Your task to perform on an android device: toggle pop-ups in chrome Image 0: 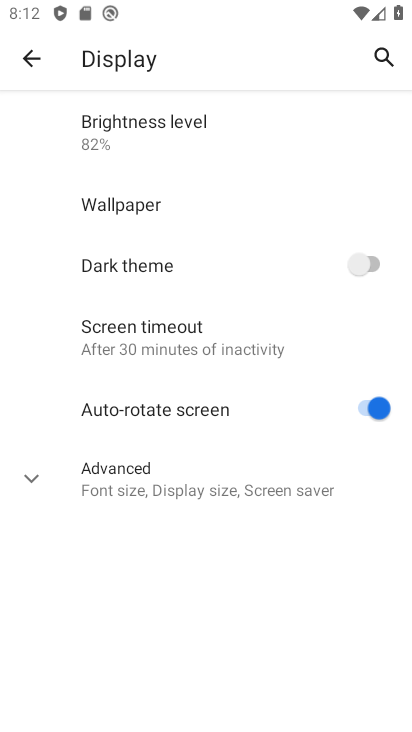
Step 0: press home button
Your task to perform on an android device: toggle pop-ups in chrome Image 1: 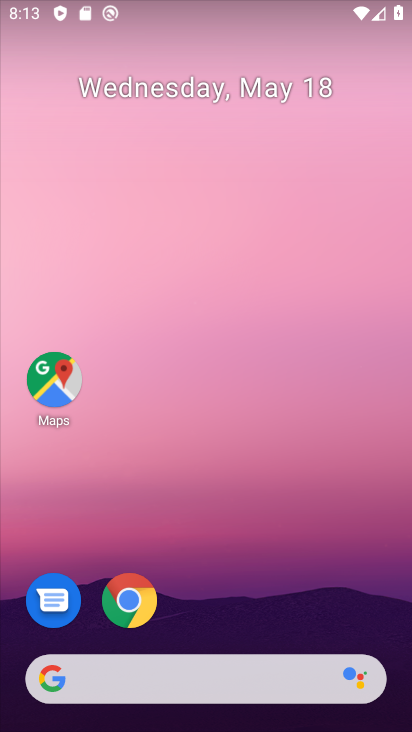
Step 1: click (133, 594)
Your task to perform on an android device: toggle pop-ups in chrome Image 2: 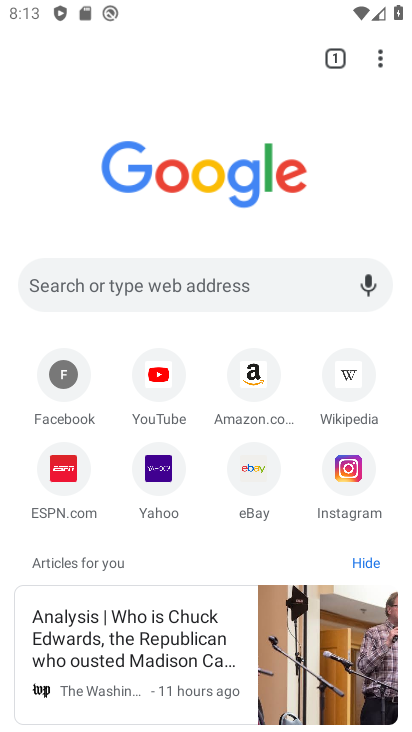
Step 2: click (381, 59)
Your task to perform on an android device: toggle pop-ups in chrome Image 3: 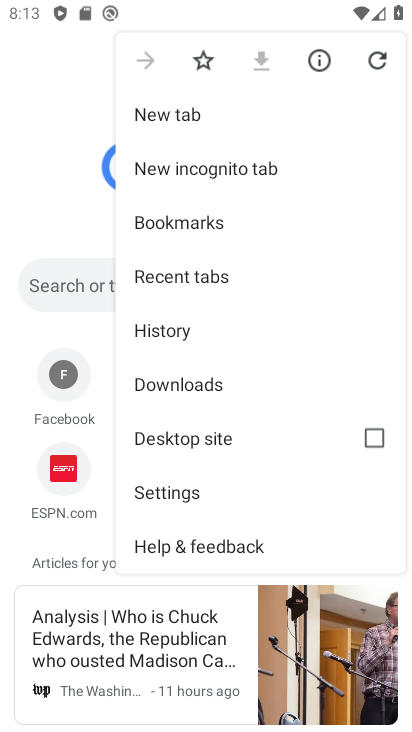
Step 3: click (185, 492)
Your task to perform on an android device: toggle pop-ups in chrome Image 4: 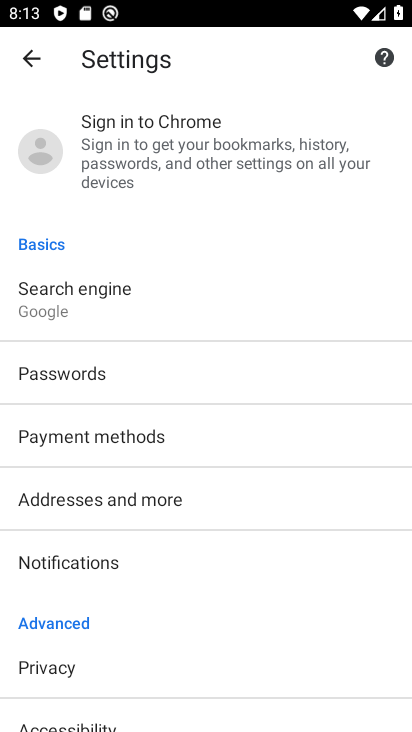
Step 4: drag from (24, 614) to (239, 188)
Your task to perform on an android device: toggle pop-ups in chrome Image 5: 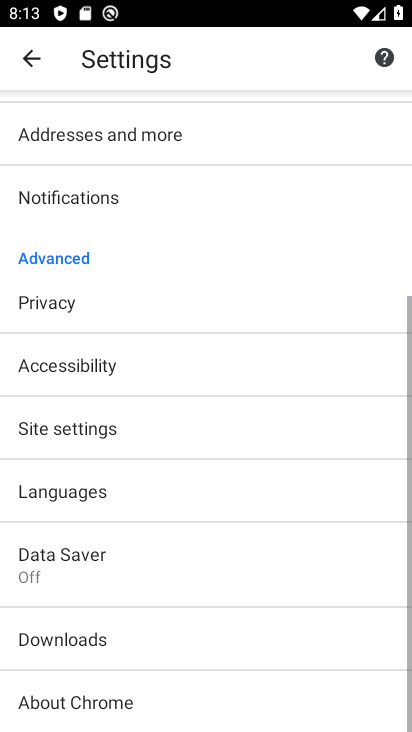
Step 5: click (58, 418)
Your task to perform on an android device: toggle pop-ups in chrome Image 6: 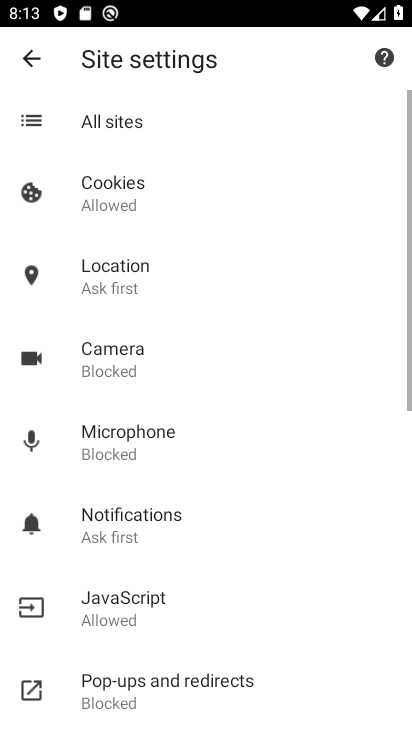
Step 6: drag from (119, 548) to (289, 167)
Your task to perform on an android device: toggle pop-ups in chrome Image 7: 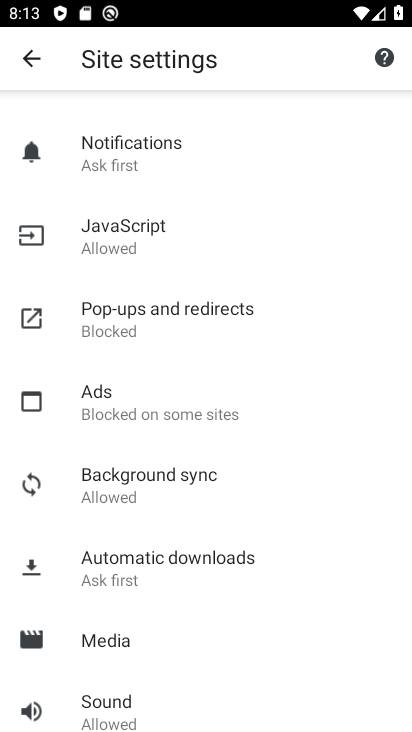
Step 7: click (130, 302)
Your task to perform on an android device: toggle pop-ups in chrome Image 8: 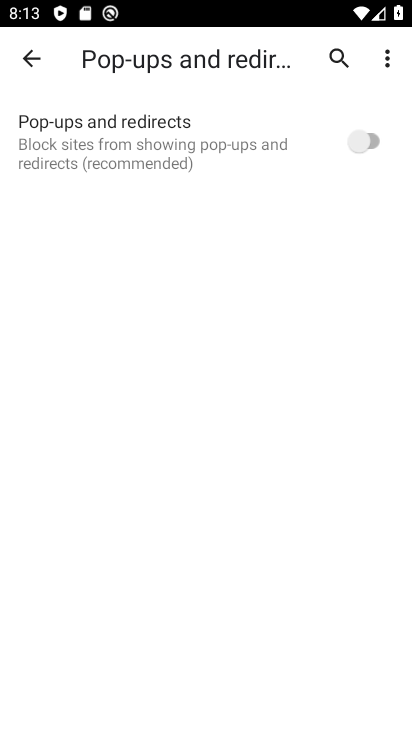
Step 8: click (359, 152)
Your task to perform on an android device: toggle pop-ups in chrome Image 9: 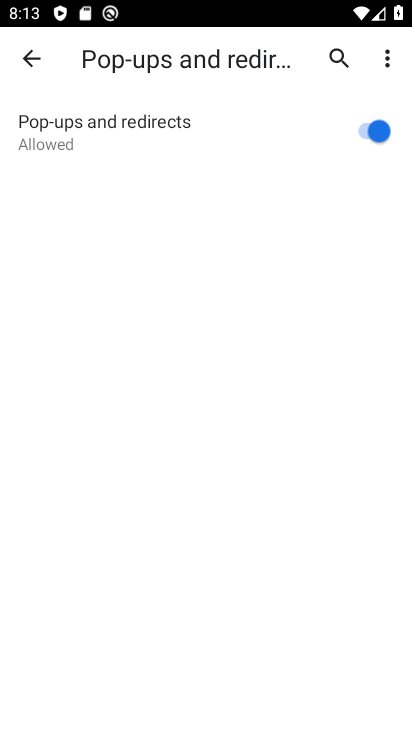
Step 9: task complete